Your task to perform on an android device: Open location settings Image 0: 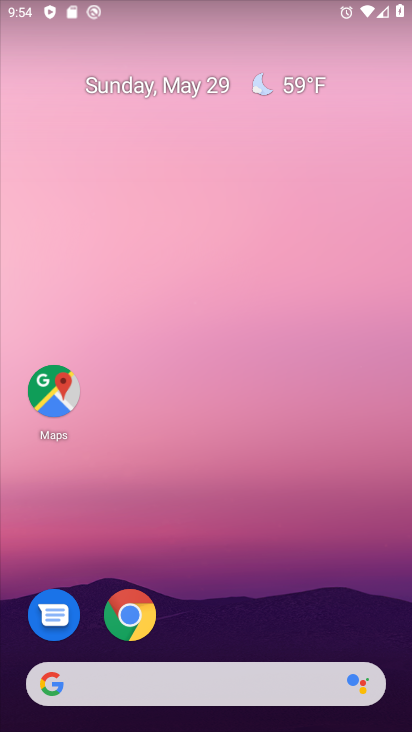
Step 0: drag from (228, 611) to (299, 104)
Your task to perform on an android device: Open location settings Image 1: 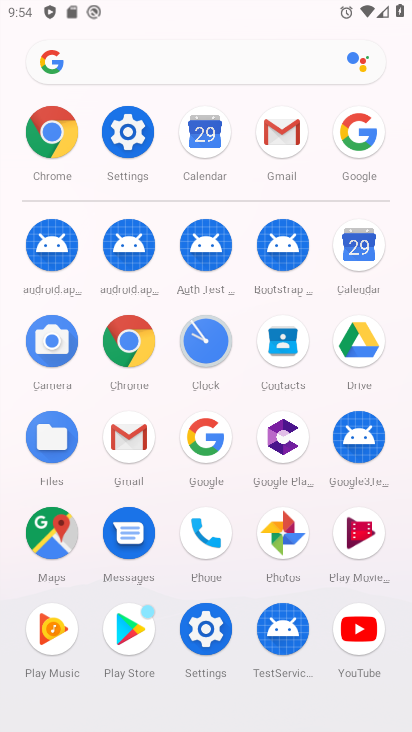
Step 1: click (129, 133)
Your task to perform on an android device: Open location settings Image 2: 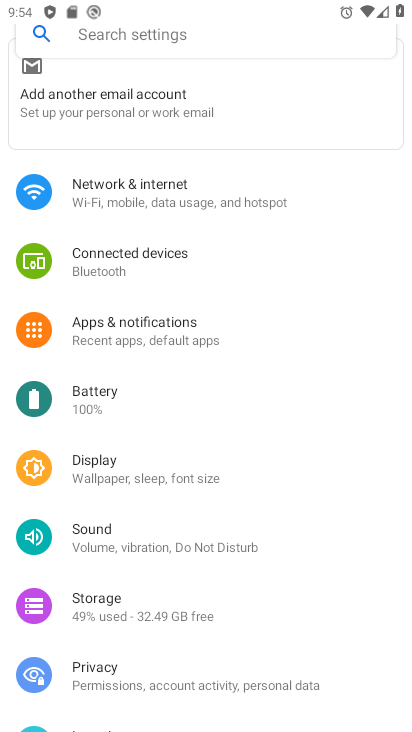
Step 2: drag from (145, 558) to (141, 111)
Your task to perform on an android device: Open location settings Image 3: 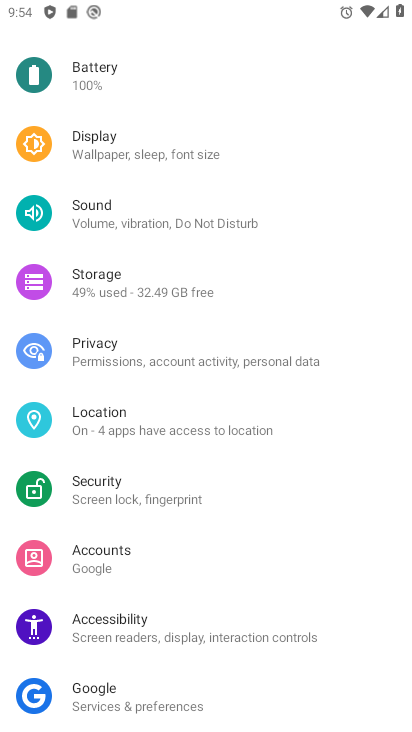
Step 3: drag from (159, 589) to (162, 383)
Your task to perform on an android device: Open location settings Image 4: 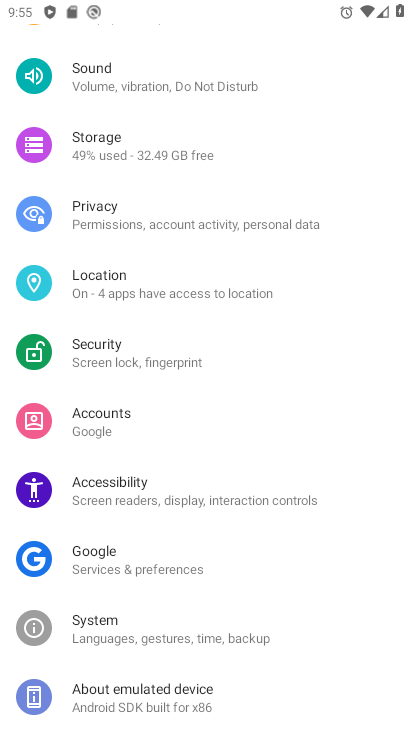
Step 4: click (112, 292)
Your task to perform on an android device: Open location settings Image 5: 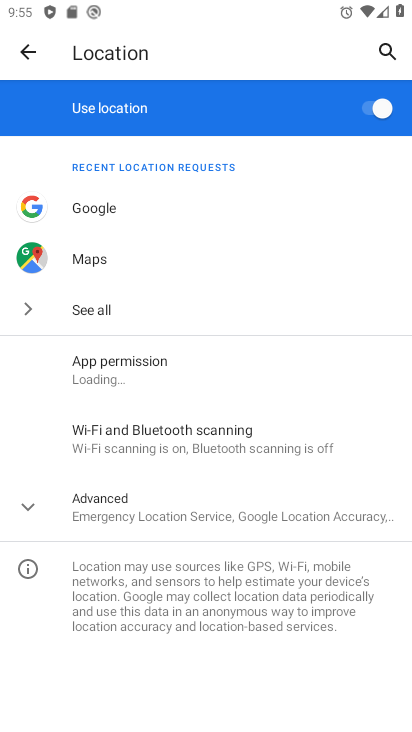
Step 5: task complete